Your task to perform on an android device: Go to Yahoo.com Image 0: 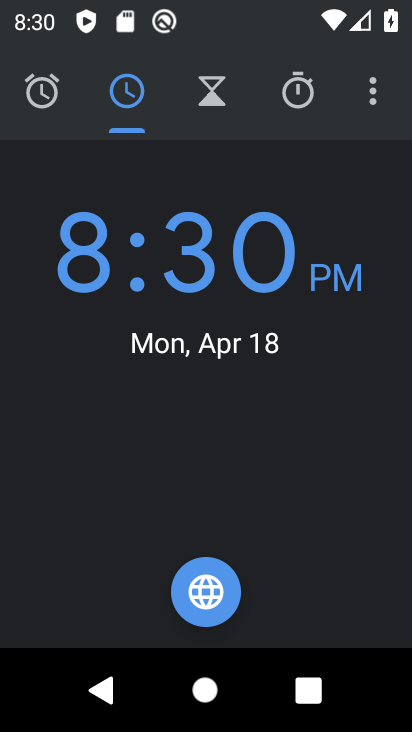
Step 0: press home button
Your task to perform on an android device: Go to Yahoo.com Image 1: 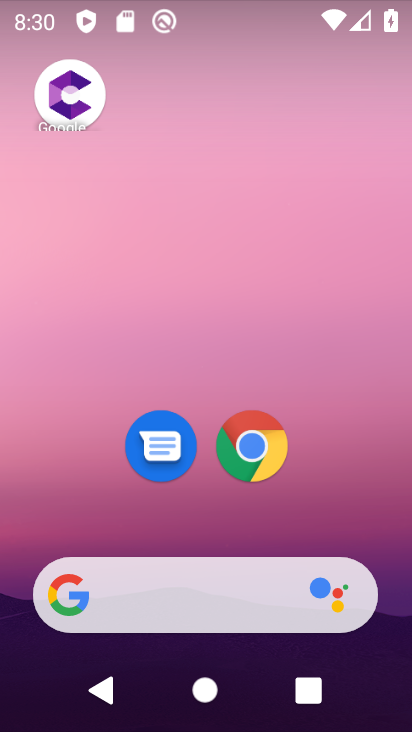
Step 1: drag from (303, 503) to (318, 62)
Your task to perform on an android device: Go to Yahoo.com Image 2: 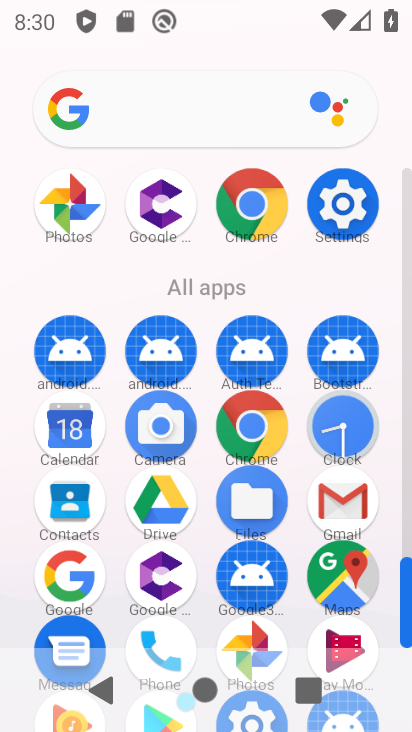
Step 2: click (256, 430)
Your task to perform on an android device: Go to Yahoo.com Image 3: 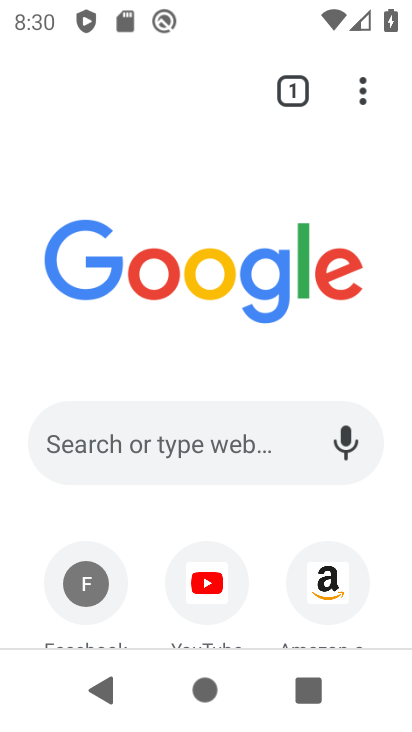
Step 3: drag from (393, 510) to (397, 192)
Your task to perform on an android device: Go to Yahoo.com Image 4: 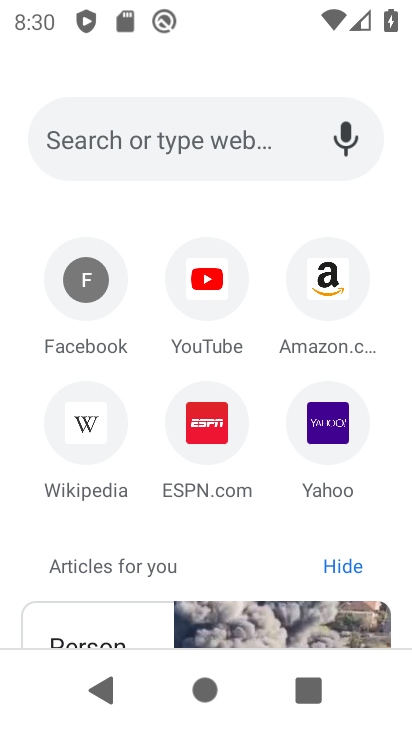
Step 4: click (333, 438)
Your task to perform on an android device: Go to Yahoo.com Image 5: 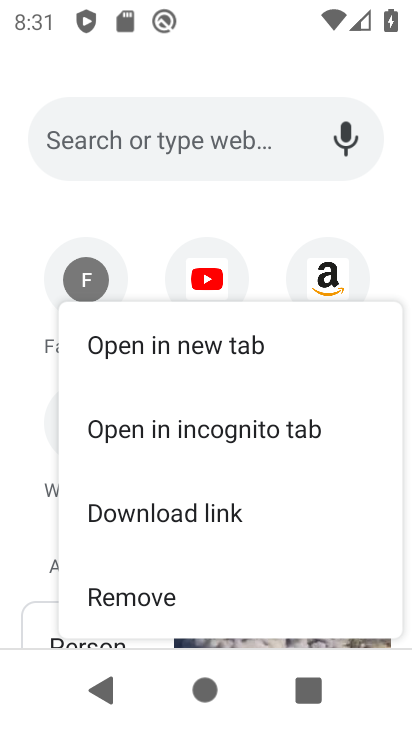
Step 5: click (389, 244)
Your task to perform on an android device: Go to Yahoo.com Image 6: 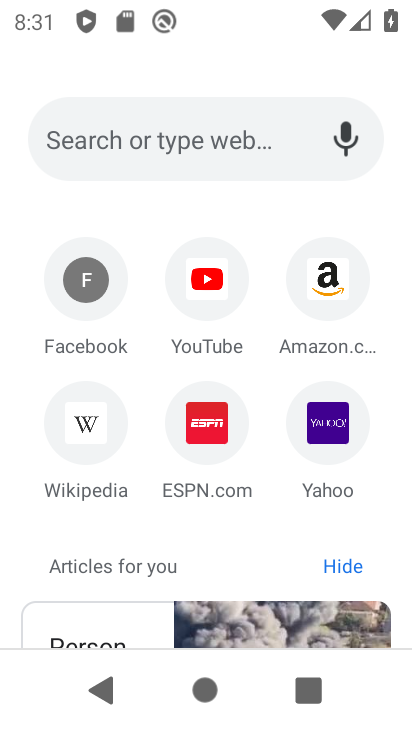
Step 6: click (321, 430)
Your task to perform on an android device: Go to Yahoo.com Image 7: 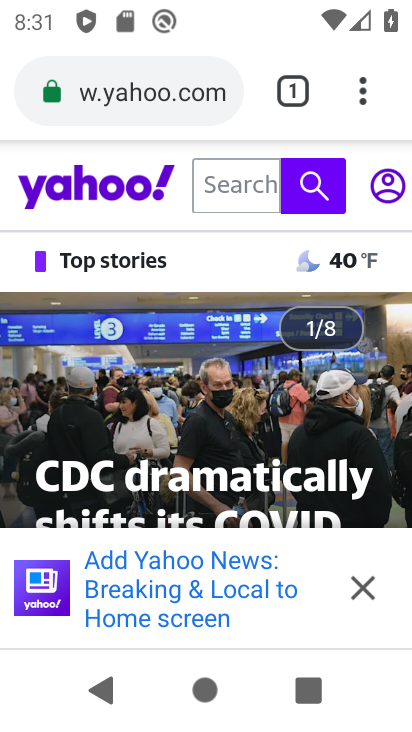
Step 7: task complete